Your task to perform on an android device: check google app version Image 0: 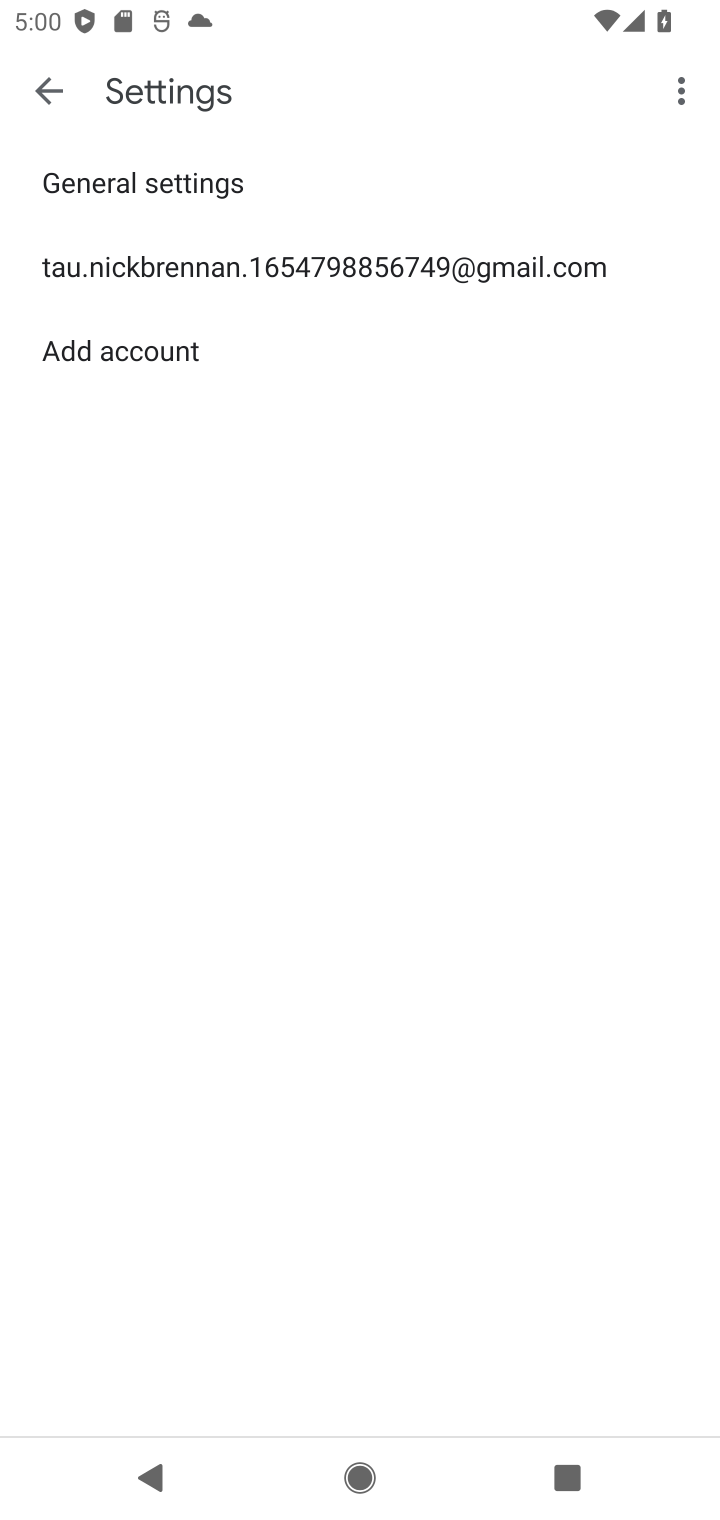
Step 0: press home button
Your task to perform on an android device: check google app version Image 1: 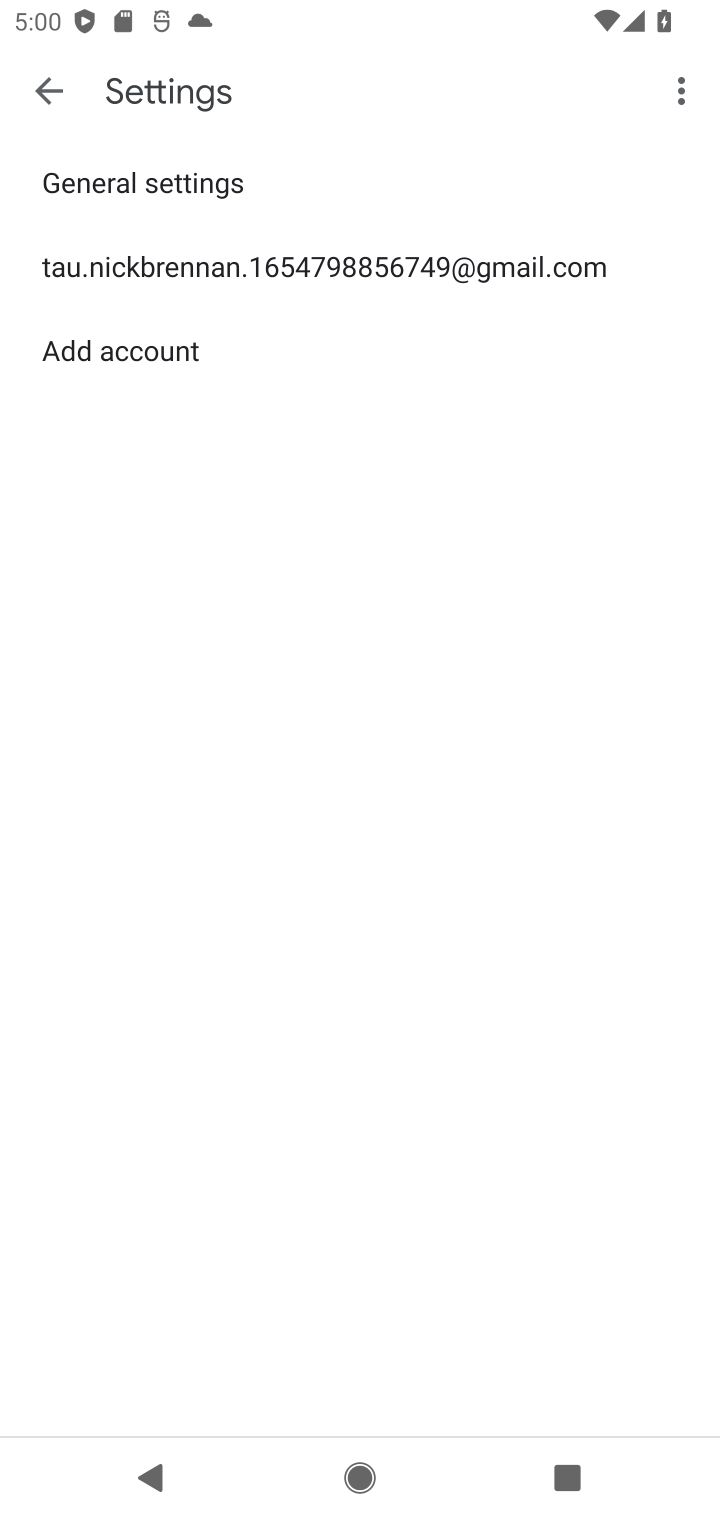
Step 1: press home button
Your task to perform on an android device: check google app version Image 2: 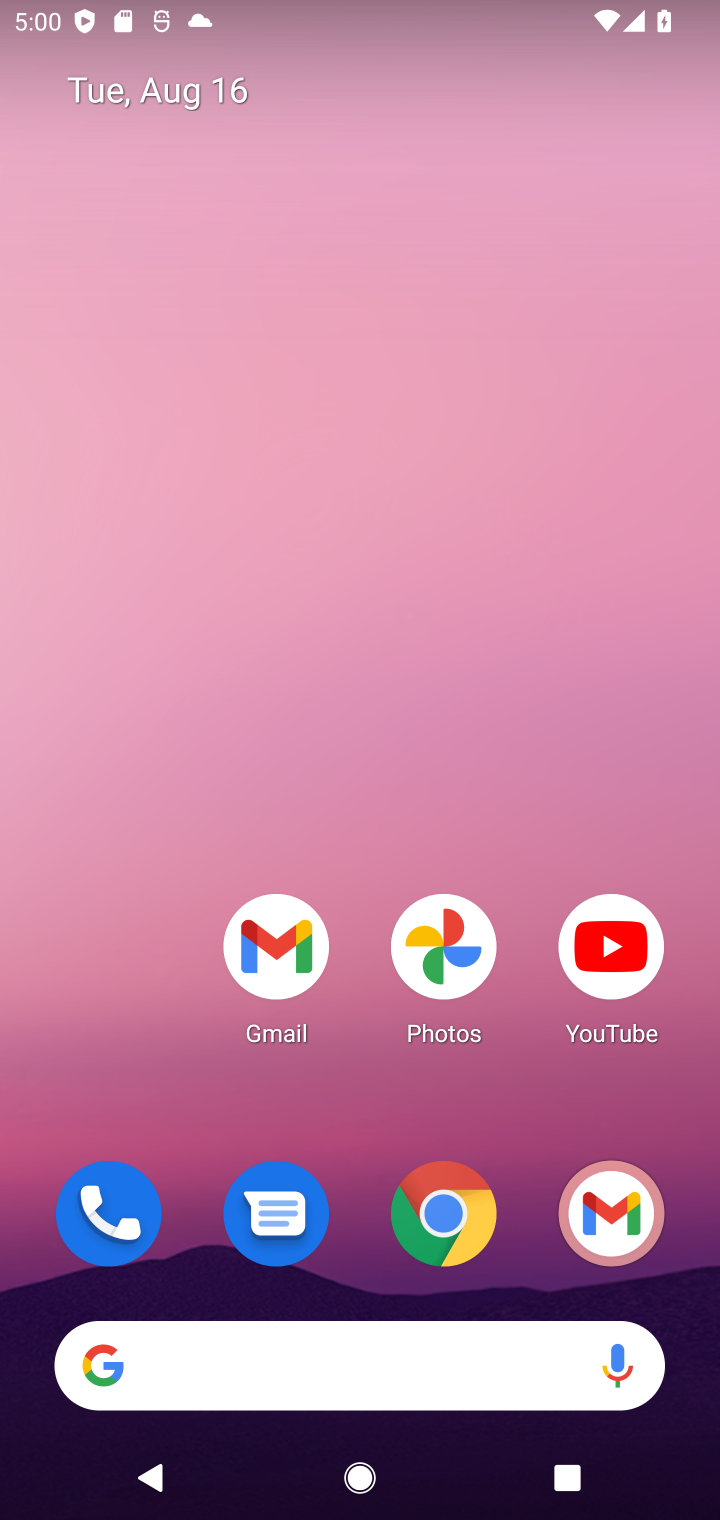
Step 2: drag from (363, 1098) to (446, 74)
Your task to perform on an android device: check google app version Image 3: 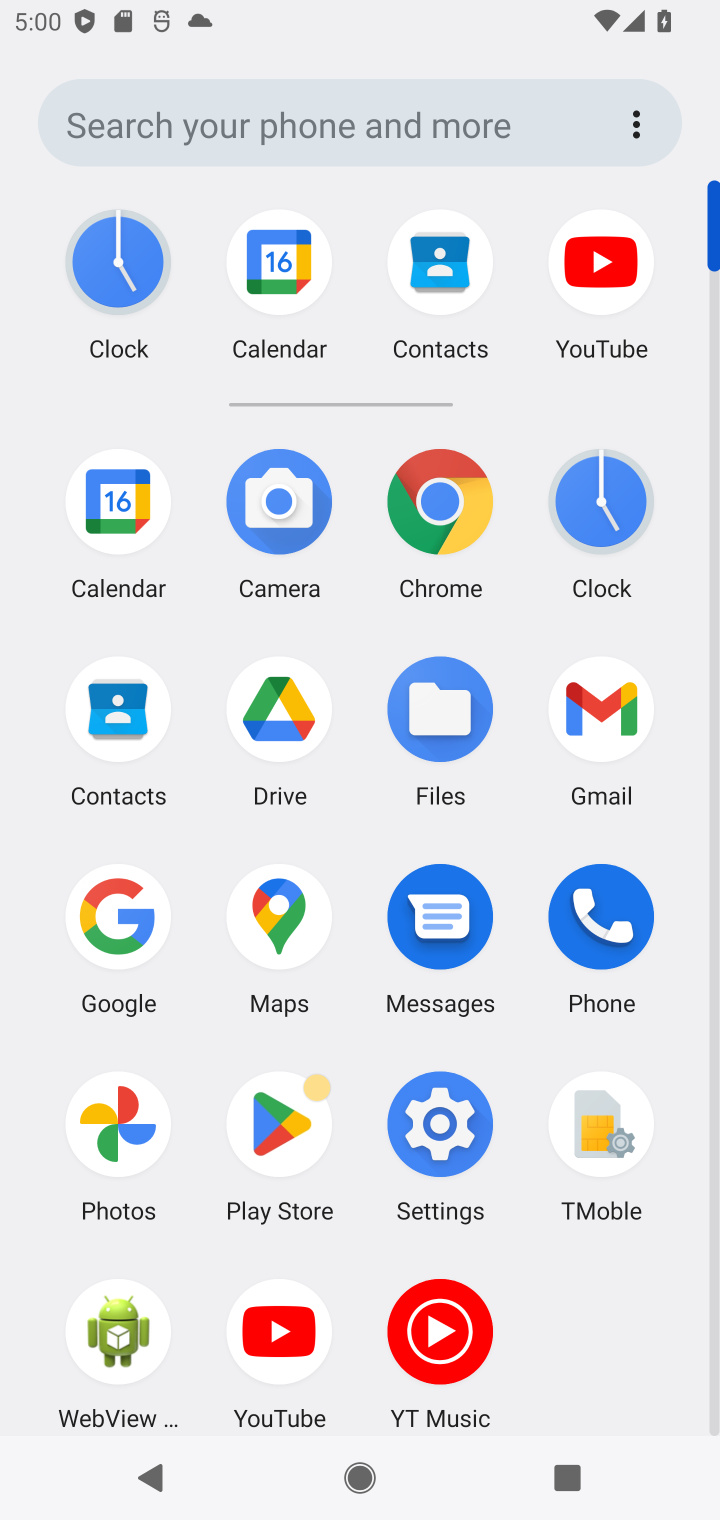
Step 3: click (114, 944)
Your task to perform on an android device: check google app version Image 4: 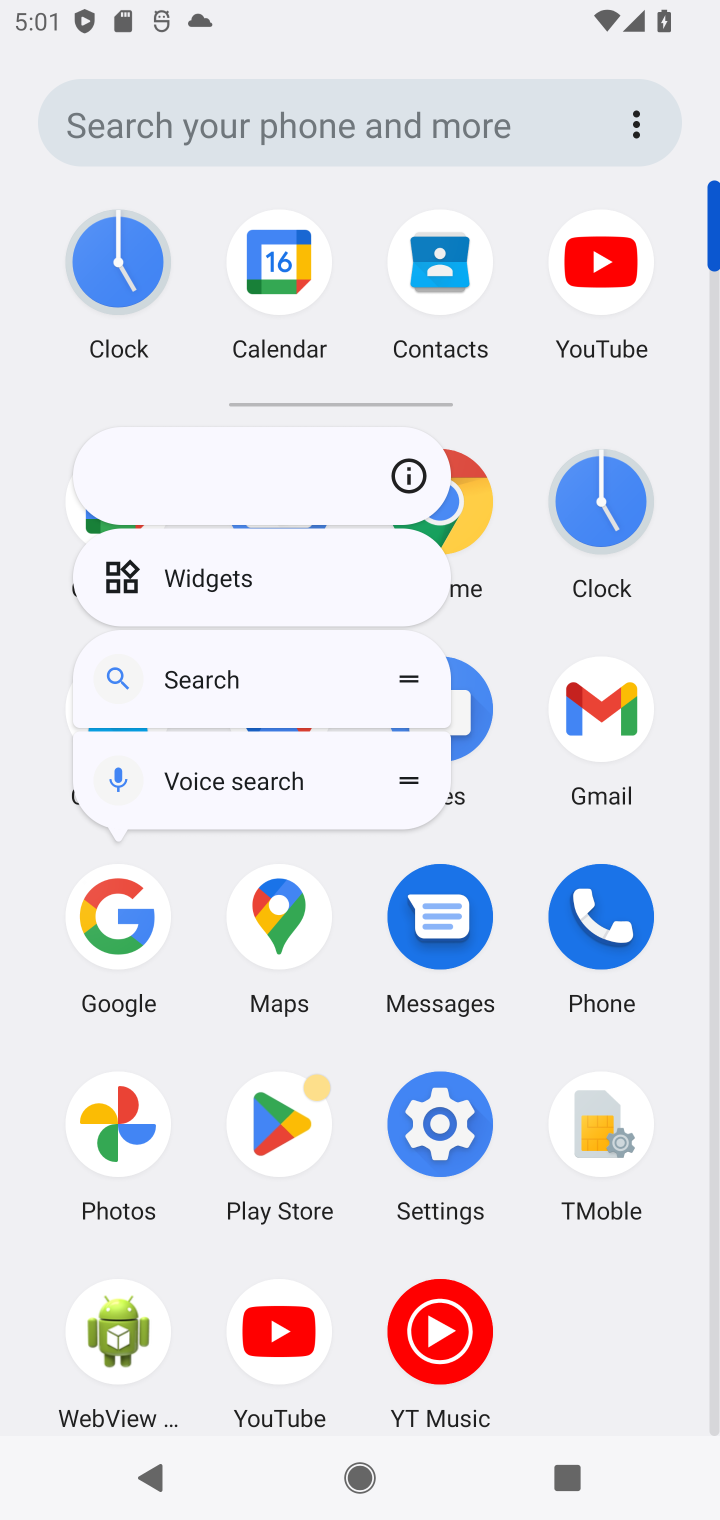
Step 4: click (411, 475)
Your task to perform on an android device: check google app version Image 5: 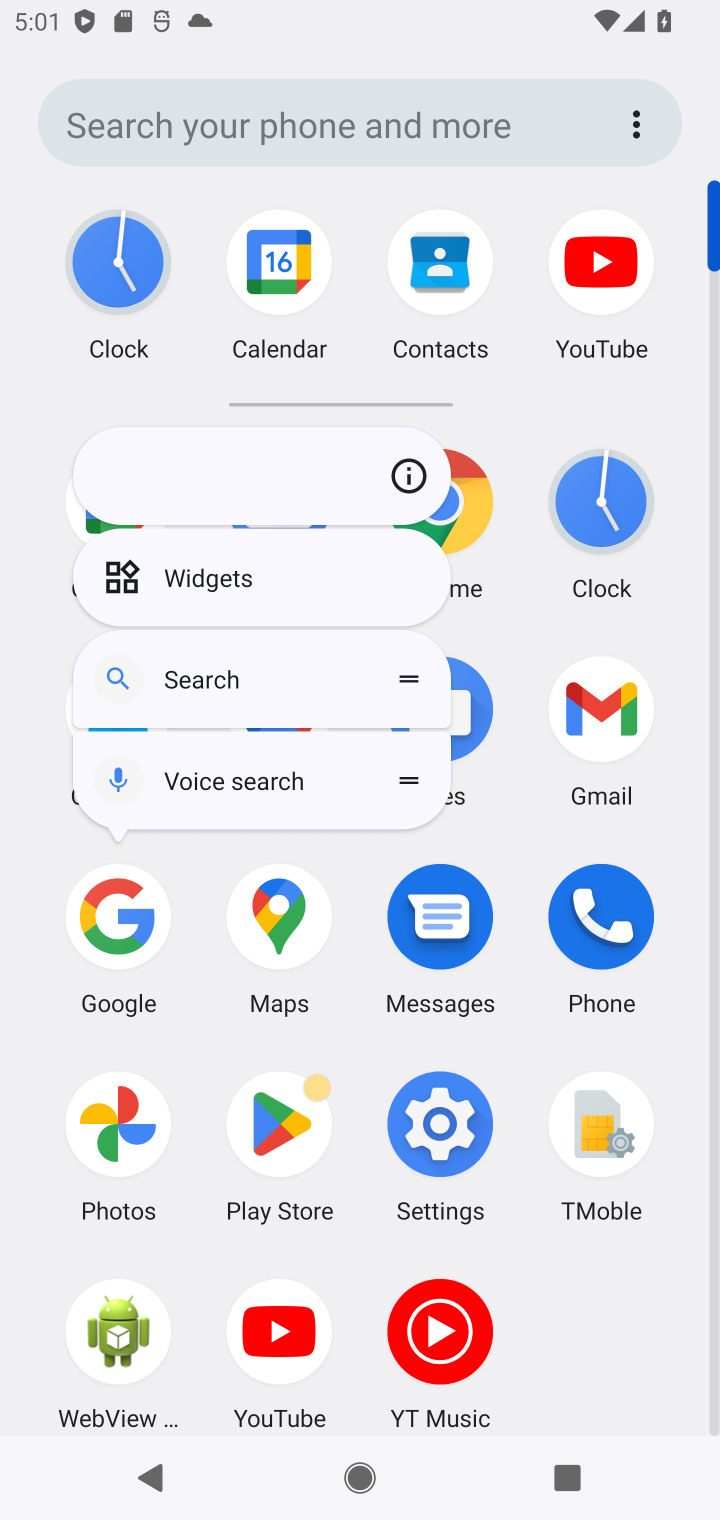
Step 5: click (402, 475)
Your task to perform on an android device: check google app version Image 6: 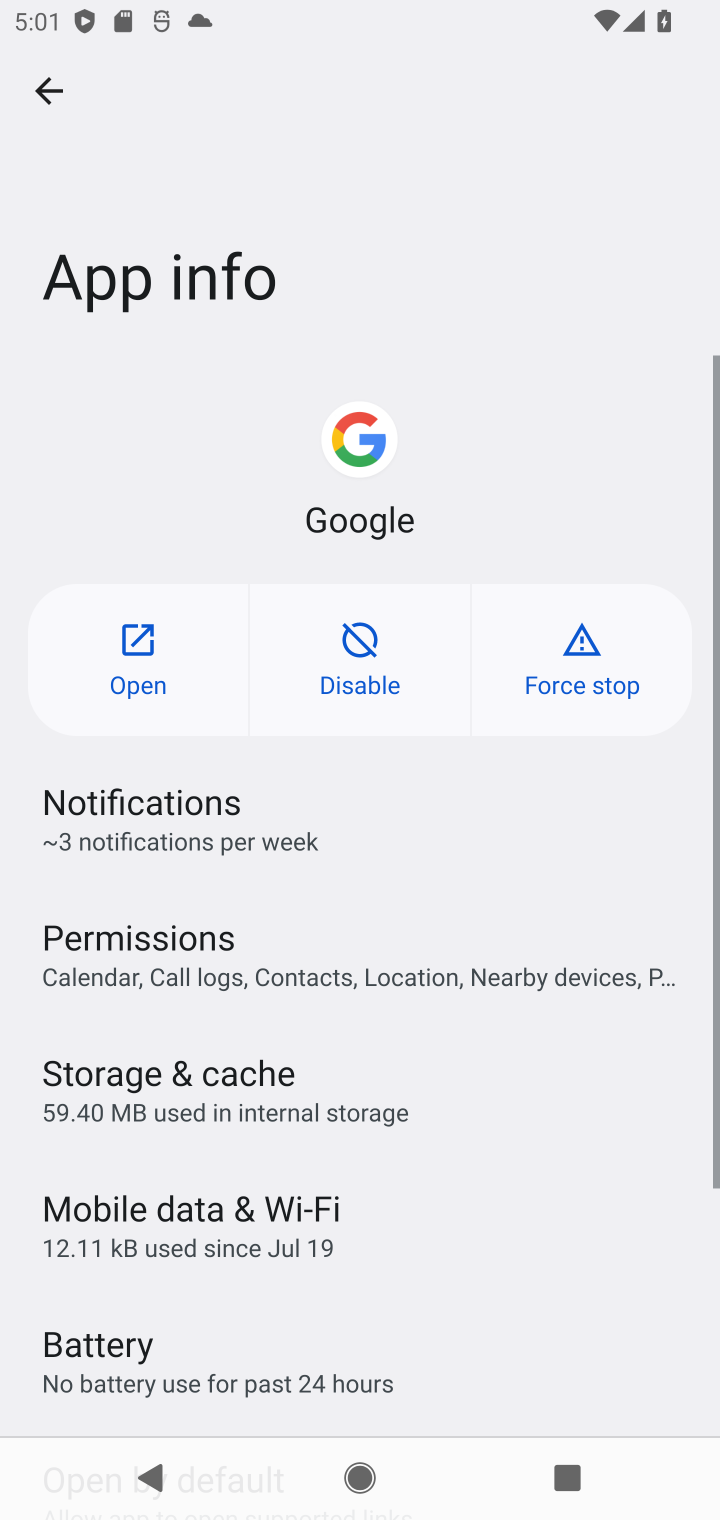
Step 6: task complete